Your task to perform on an android device: change notification settings in the gmail app Image 0: 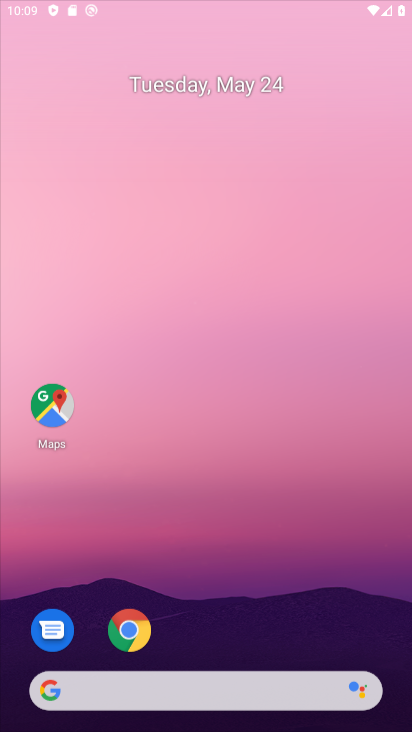
Step 0: press home button
Your task to perform on an android device: change notification settings in the gmail app Image 1: 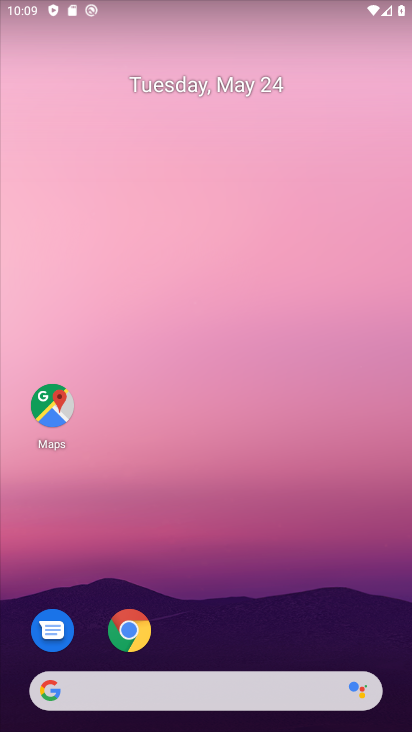
Step 1: drag from (248, 651) to (220, 23)
Your task to perform on an android device: change notification settings in the gmail app Image 2: 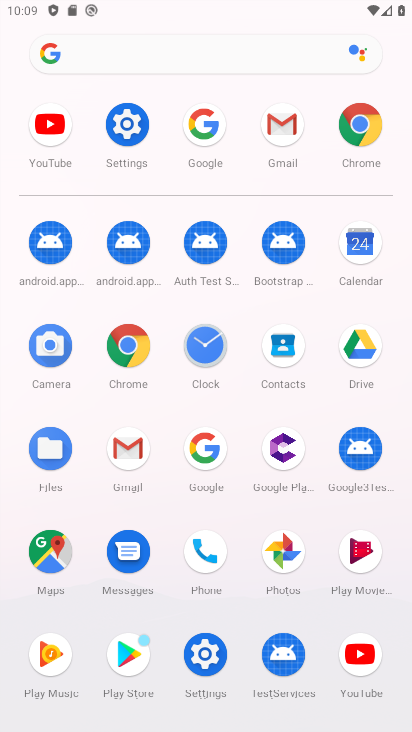
Step 2: click (281, 121)
Your task to perform on an android device: change notification settings in the gmail app Image 3: 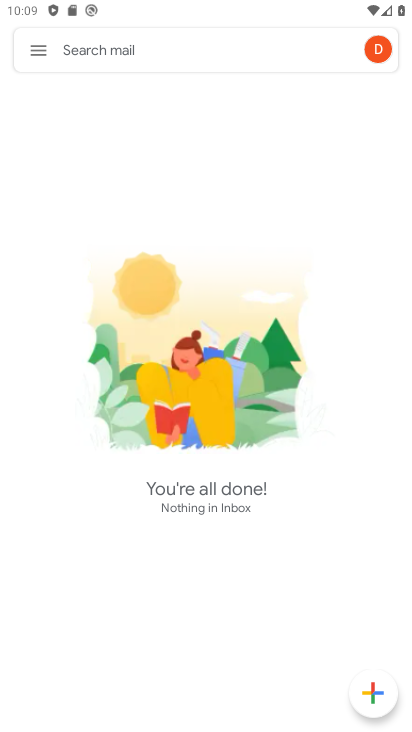
Step 3: click (35, 50)
Your task to perform on an android device: change notification settings in the gmail app Image 4: 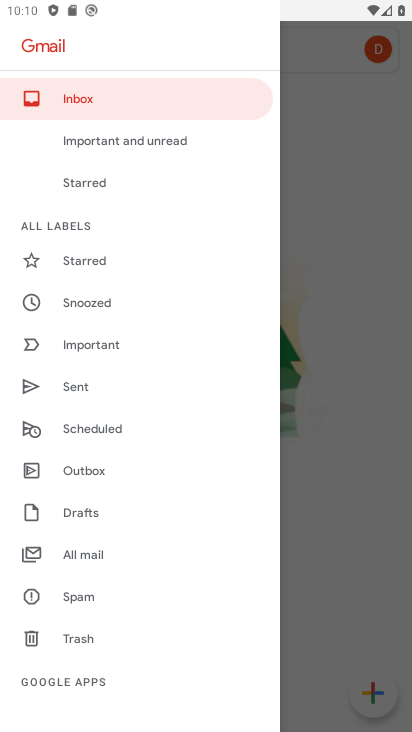
Step 4: drag from (128, 675) to (141, 131)
Your task to perform on an android device: change notification settings in the gmail app Image 5: 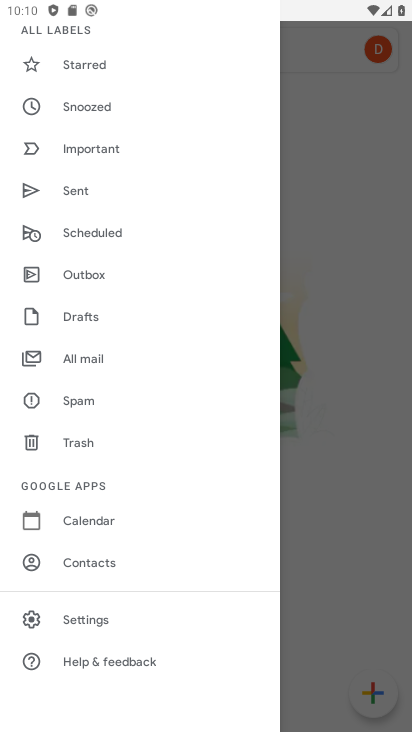
Step 5: click (114, 610)
Your task to perform on an android device: change notification settings in the gmail app Image 6: 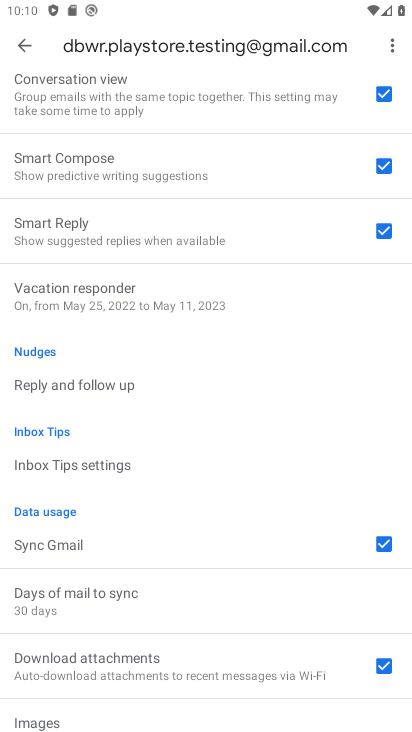
Step 6: click (23, 51)
Your task to perform on an android device: change notification settings in the gmail app Image 7: 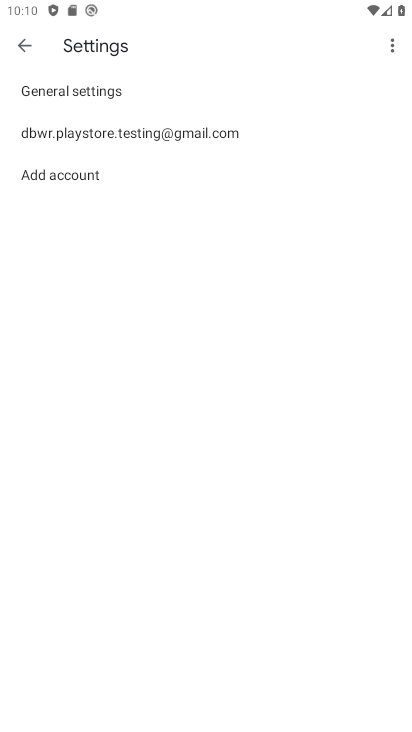
Step 7: click (136, 83)
Your task to perform on an android device: change notification settings in the gmail app Image 8: 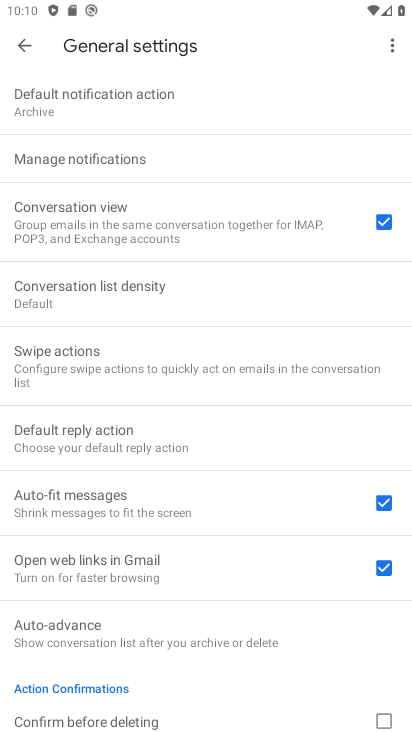
Step 8: click (156, 152)
Your task to perform on an android device: change notification settings in the gmail app Image 9: 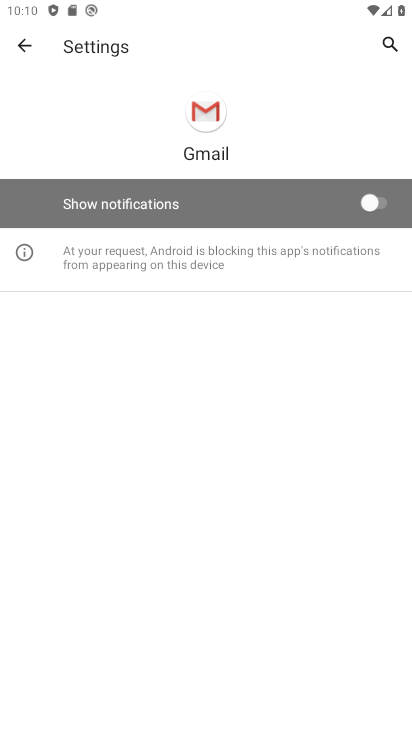
Step 9: click (376, 203)
Your task to perform on an android device: change notification settings in the gmail app Image 10: 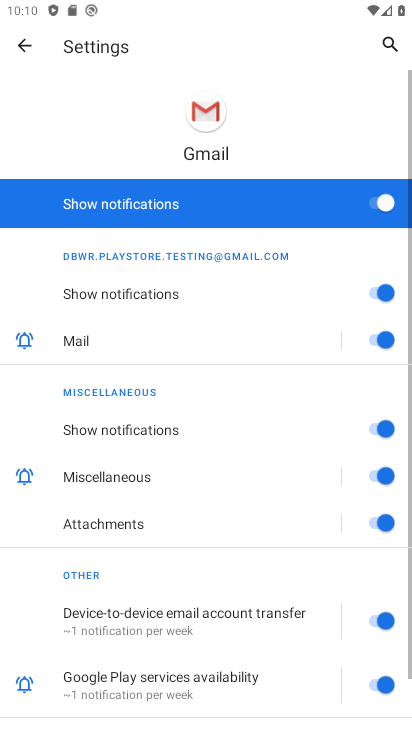
Step 10: task complete